Your task to perform on an android device: Open sound settings Image 0: 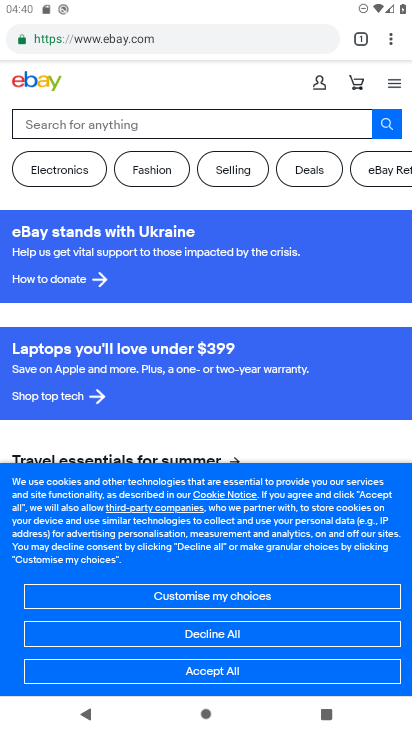
Step 0: press home button
Your task to perform on an android device: Open sound settings Image 1: 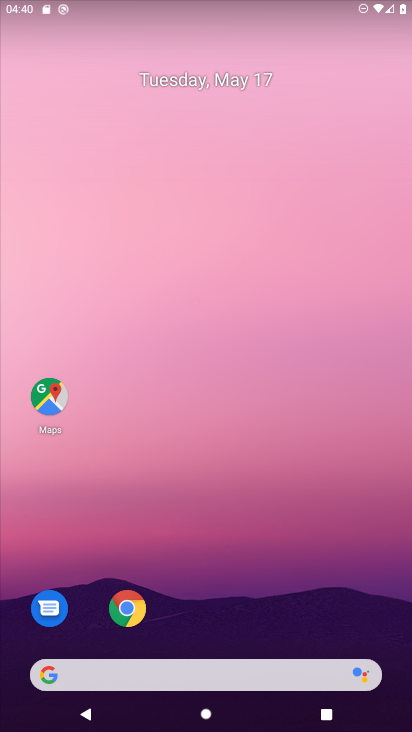
Step 1: drag from (176, 623) to (224, 310)
Your task to perform on an android device: Open sound settings Image 2: 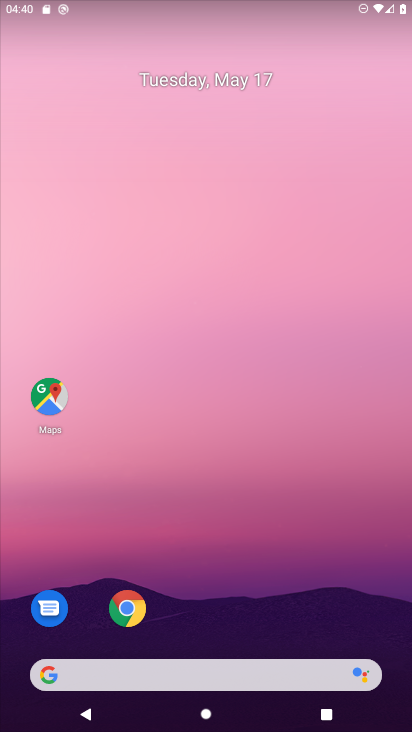
Step 2: drag from (229, 654) to (274, 255)
Your task to perform on an android device: Open sound settings Image 3: 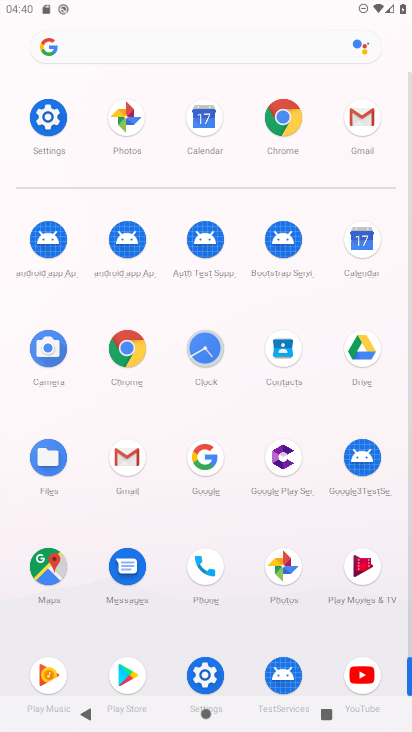
Step 3: click (48, 115)
Your task to perform on an android device: Open sound settings Image 4: 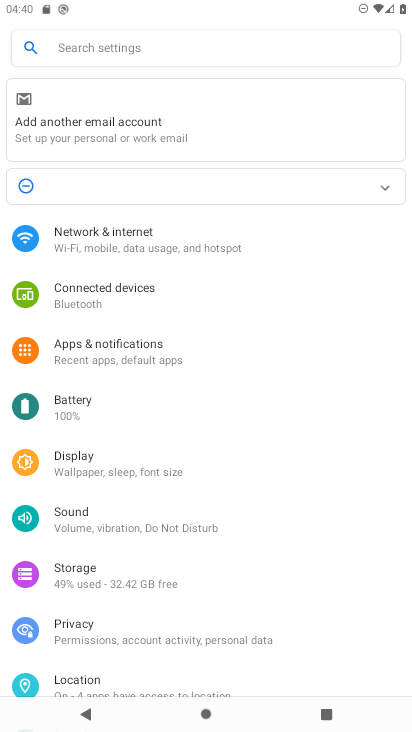
Step 4: click (88, 516)
Your task to perform on an android device: Open sound settings Image 5: 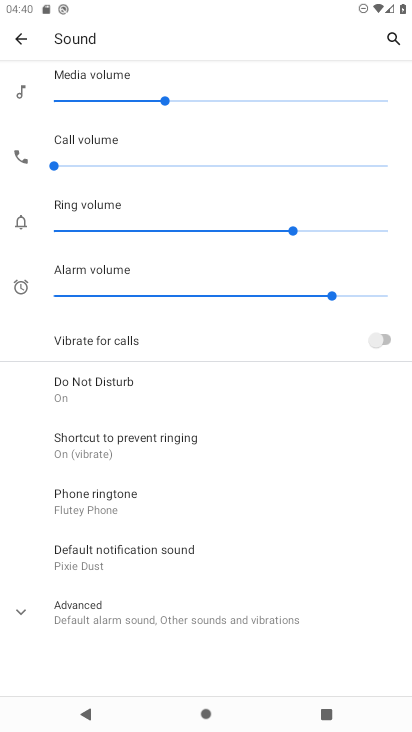
Step 5: click (127, 623)
Your task to perform on an android device: Open sound settings Image 6: 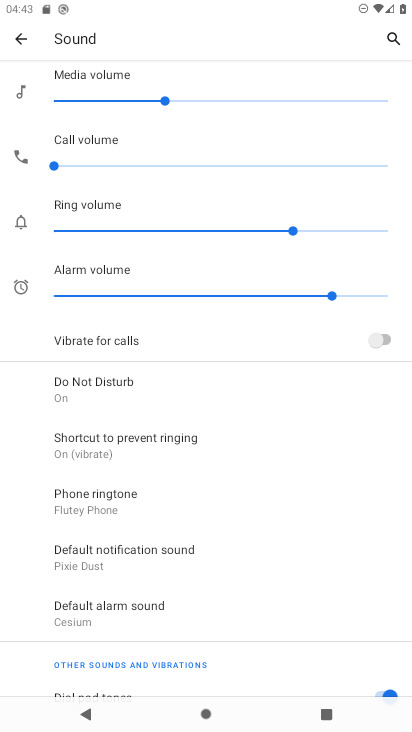
Step 6: task complete